Your task to perform on an android device: create a new album in the google photos Image 0: 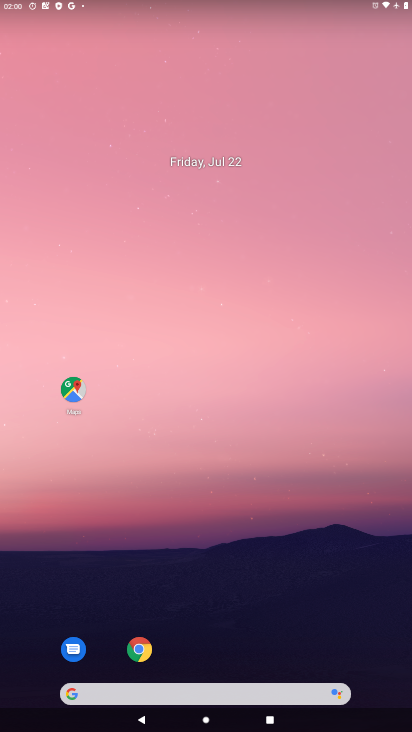
Step 0: drag from (324, 561) to (266, 12)
Your task to perform on an android device: create a new album in the google photos Image 1: 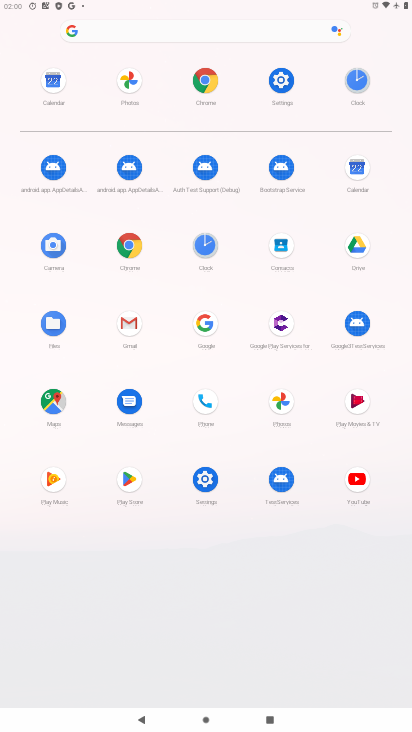
Step 1: click (274, 399)
Your task to perform on an android device: create a new album in the google photos Image 2: 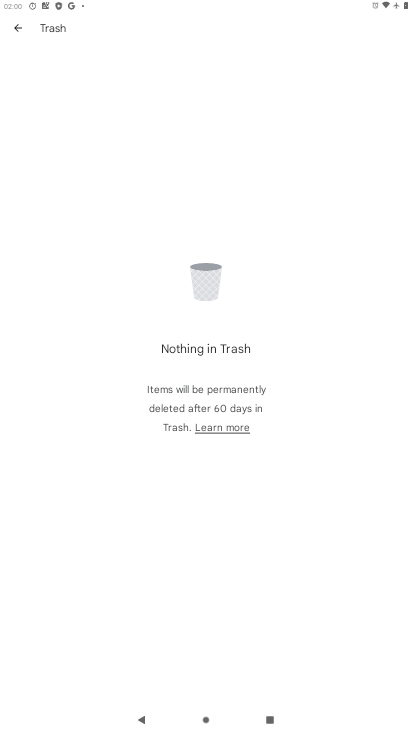
Step 2: click (17, 22)
Your task to perform on an android device: create a new album in the google photos Image 3: 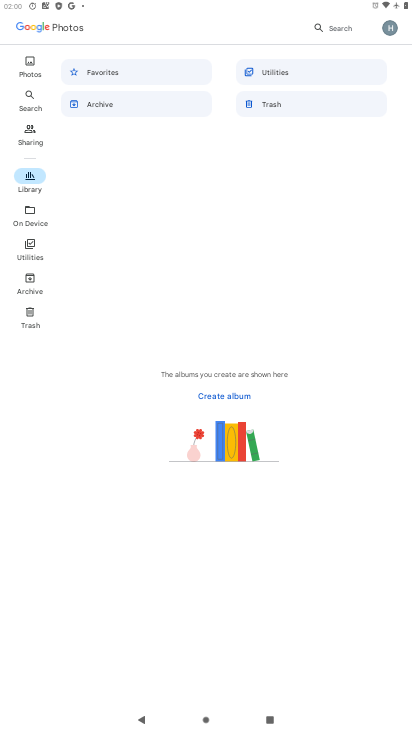
Step 3: click (214, 394)
Your task to perform on an android device: create a new album in the google photos Image 4: 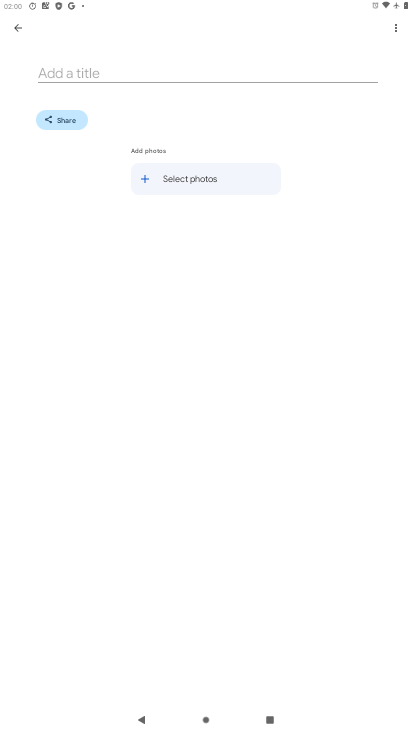
Step 4: click (189, 78)
Your task to perform on an android device: create a new album in the google photos Image 5: 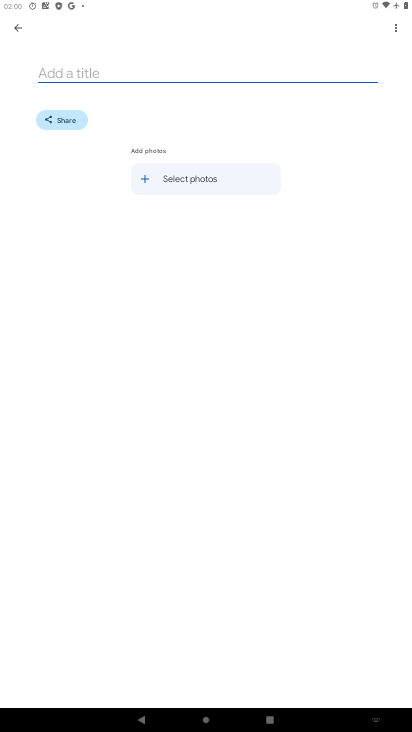
Step 5: type "pop bhuka"
Your task to perform on an android device: create a new album in the google photos Image 6: 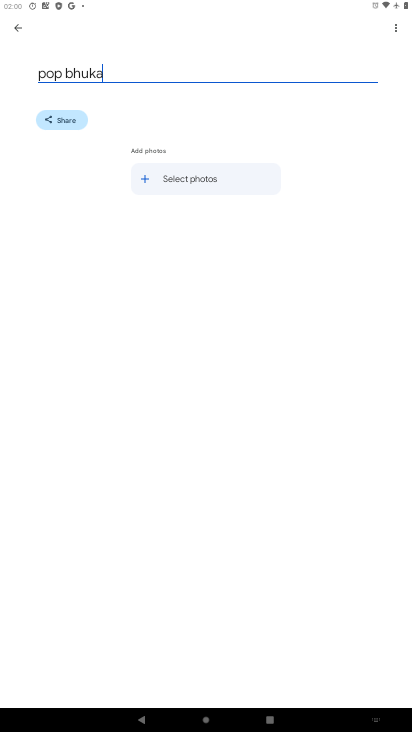
Step 6: click (359, 143)
Your task to perform on an android device: create a new album in the google photos Image 7: 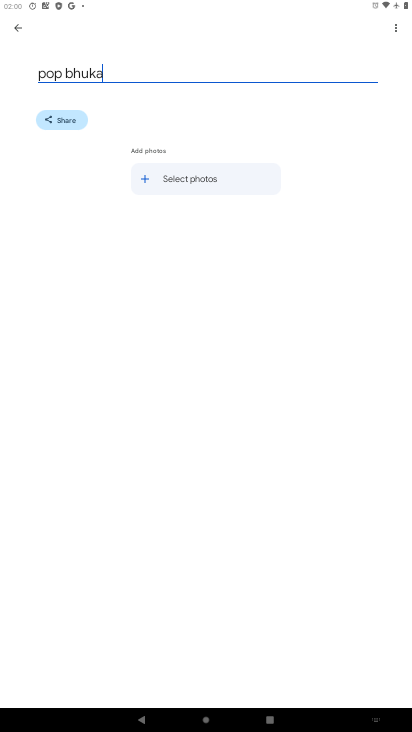
Step 7: click (339, 136)
Your task to perform on an android device: create a new album in the google photos Image 8: 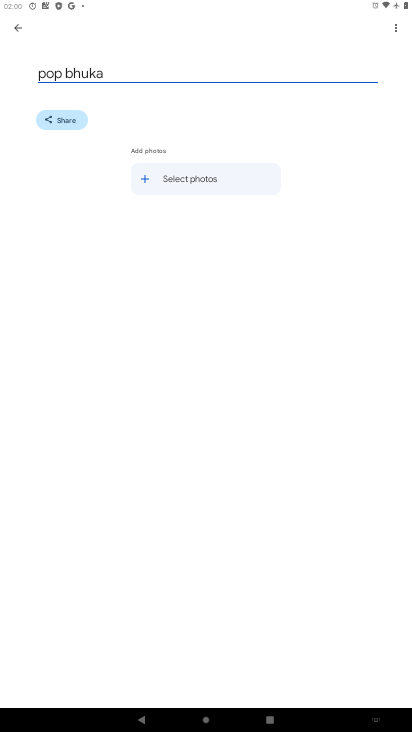
Step 8: click (396, 27)
Your task to perform on an android device: create a new album in the google photos Image 9: 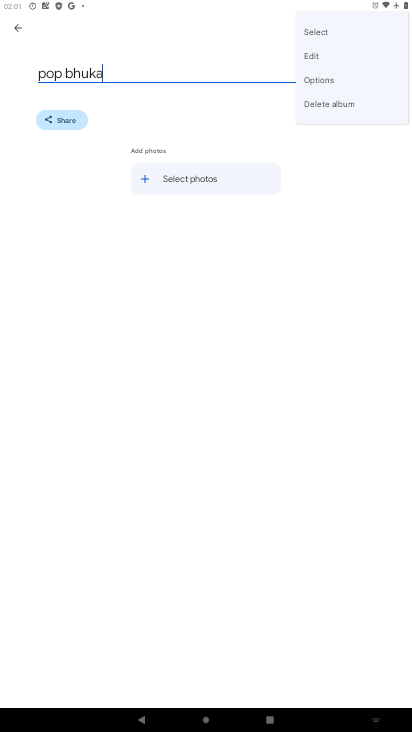
Step 9: task complete